Your task to perform on an android device: Check the news Image 0: 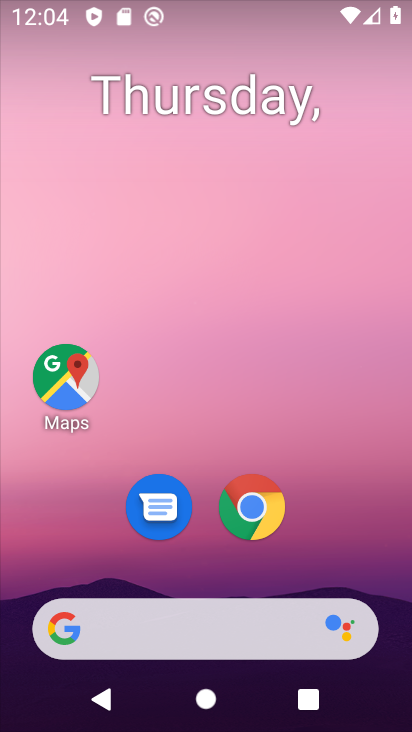
Step 0: drag from (238, 640) to (284, 59)
Your task to perform on an android device: Check the news Image 1: 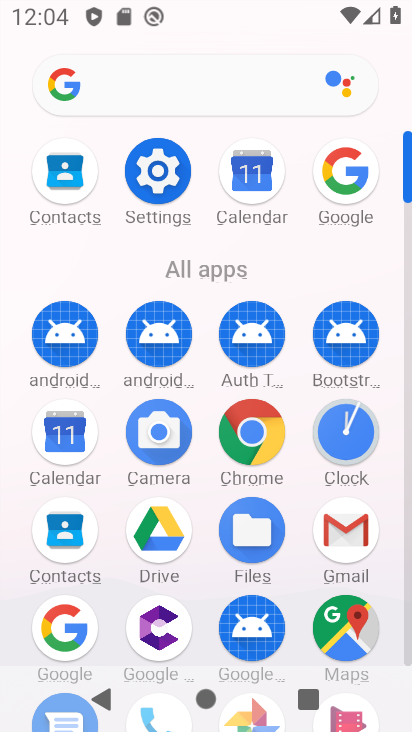
Step 1: drag from (251, 495) to (251, 206)
Your task to perform on an android device: Check the news Image 2: 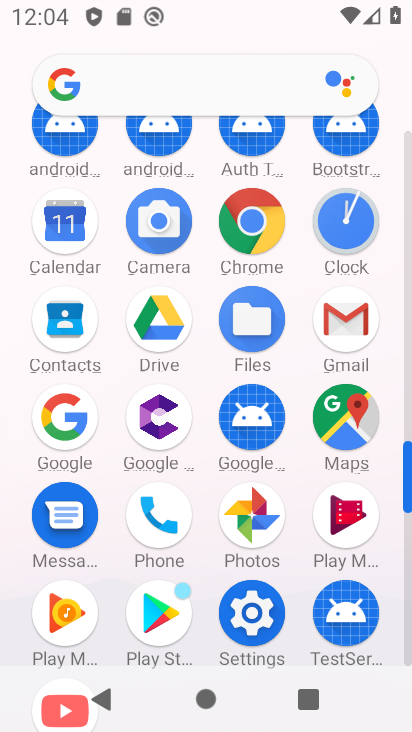
Step 2: click (30, 425)
Your task to perform on an android device: Check the news Image 3: 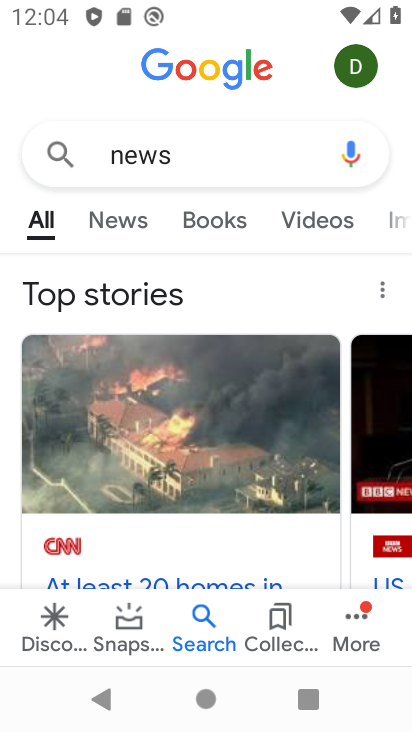
Step 3: click (108, 231)
Your task to perform on an android device: Check the news Image 4: 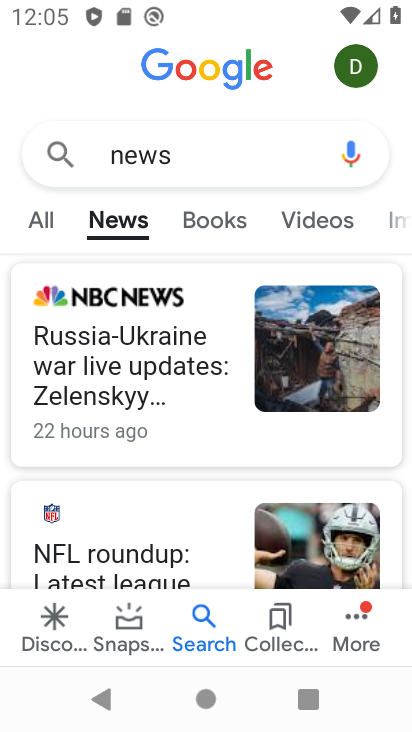
Step 4: task complete